Your task to perform on an android device: Search for Mexican restaurants on Maps Image 0: 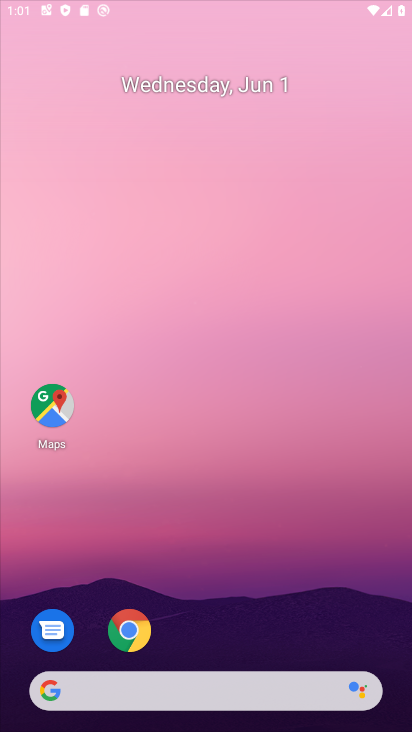
Step 0: press home button
Your task to perform on an android device: Search for Mexican restaurants on Maps Image 1: 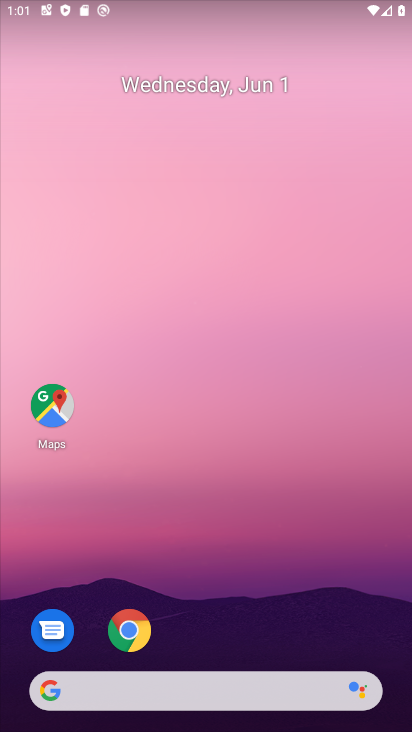
Step 1: click (46, 414)
Your task to perform on an android device: Search for Mexican restaurants on Maps Image 2: 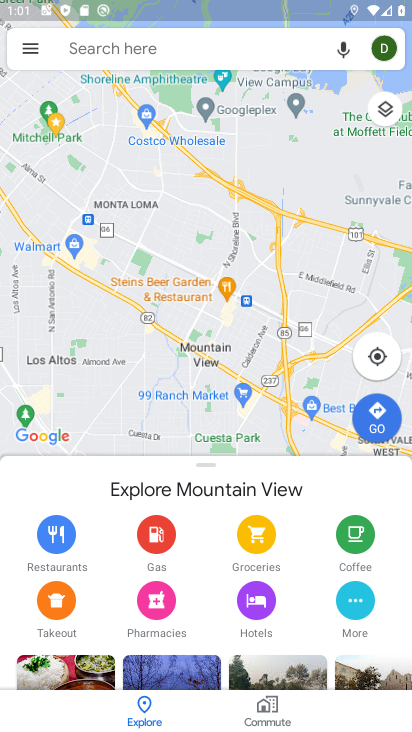
Step 2: click (149, 51)
Your task to perform on an android device: Search for Mexican restaurants on Maps Image 3: 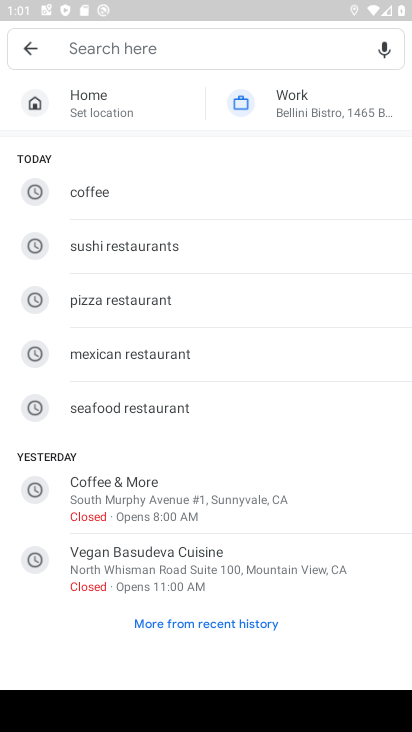
Step 3: click (136, 358)
Your task to perform on an android device: Search for Mexican restaurants on Maps Image 4: 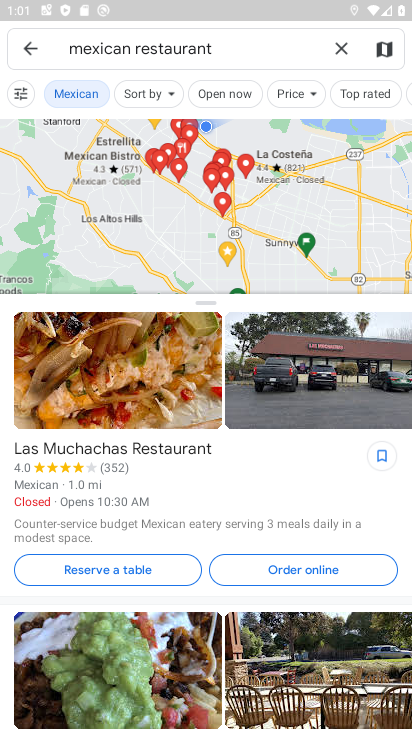
Step 4: task complete